Your task to perform on an android device: open app "YouTube Kids" (install if not already installed) Image 0: 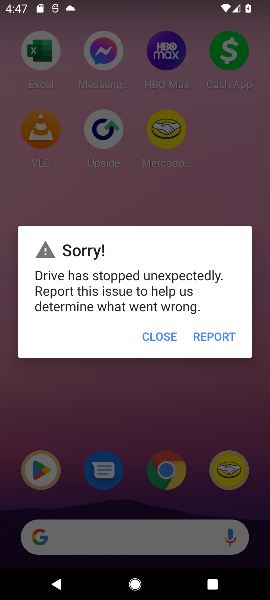
Step 0: press home button
Your task to perform on an android device: open app "YouTube Kids" (install if not already installed) Image 1: 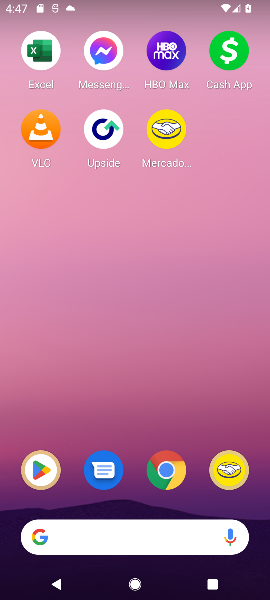
Step 1: click (41, 474)
Your task to perform on an android device: open app "YouTube Kids" (install if not already installed) Image 2: 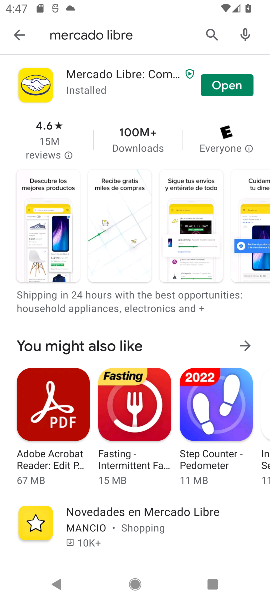
Step 2: click (210, 30)
Your task to perform on an android device: open app "YouTube Kids" (install if not already installed) Image 3: 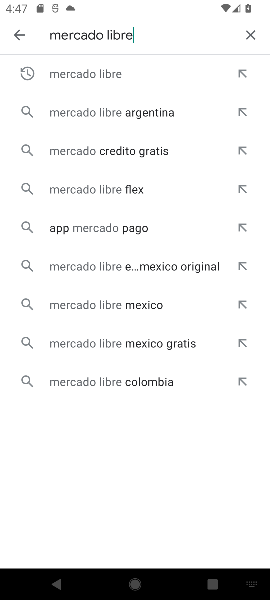
Step 3: click (254, 32)
Your task to perform on an android device: open app "YouTube Kids" (install if not already installed) Image 4: 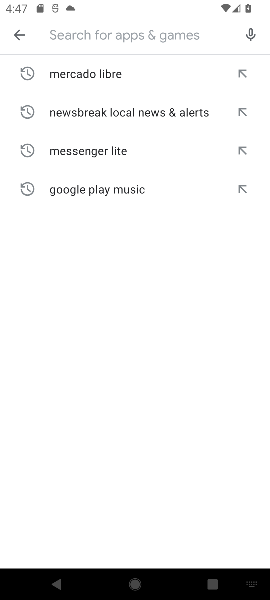
Step 4: click (125, 32)
Your task to perform on an android device: open app "YouTube Kids" (install if not already installed) Image 5: 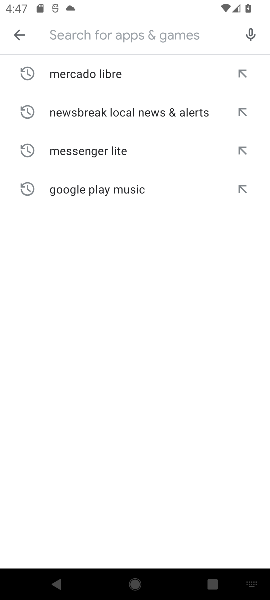
Step 5: type "YouTube Kids"
Your task to perform on an android device: open app "YouTube Kids" (install if not already installed) Image 6: 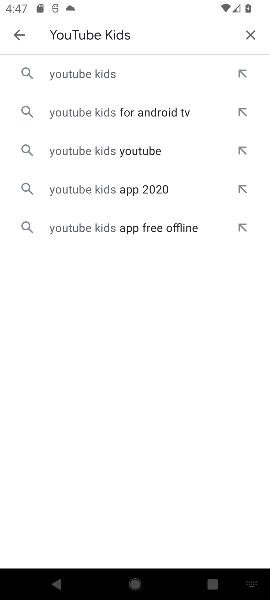
Step 6: click (125, 68)
Your task to perform on an android device: open app "YouTube Kids" (install if not already installed) Image 7: 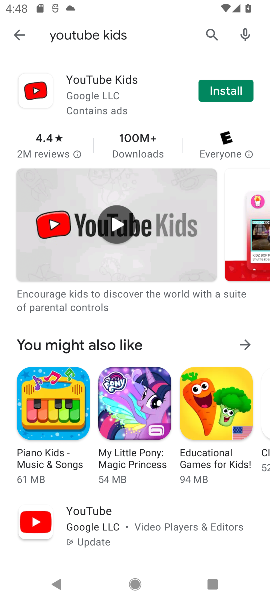
Step 7: click (221, 92)
Your task to perform on an android device: open app "YouTube Kids" (install if not already installed) Image 8: 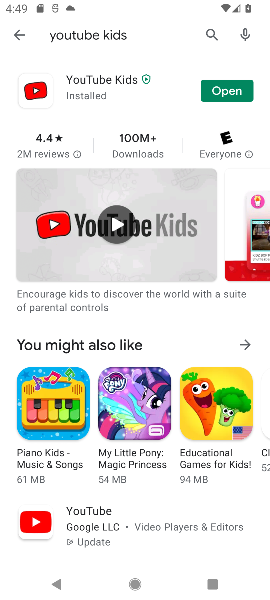
Step 8: click (236, 86)
Your task to perform on an android device: open app "YouTube Kids" (install if not already installed) Image 9: 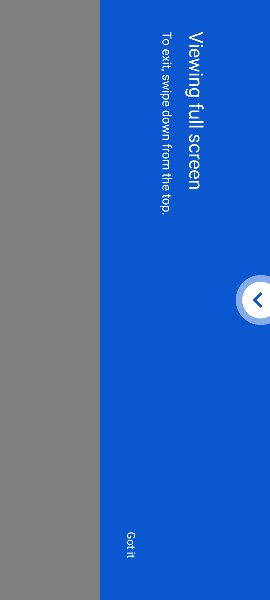
Step 9: task complete